Your task to perform on an android device: Open the phone app and click the voicemail tab. Image 0: 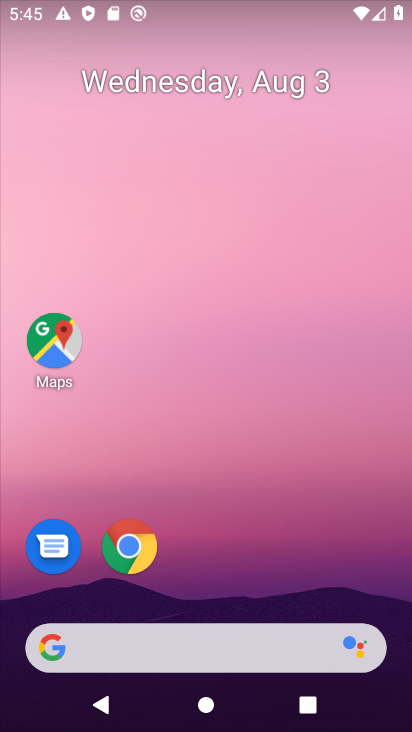
Step 0: drag from (325, 506) to (289, 61)
Your task to perform on an android device: Open the phone app and click the voicemail tab. Image 1: 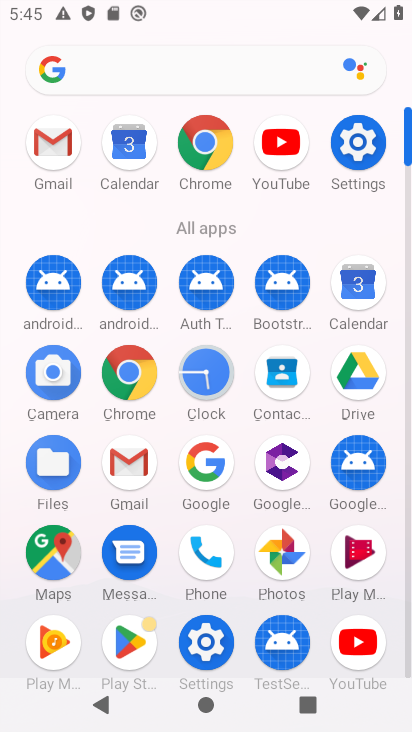
Step 1: click (209, 557)
Your task to perform on an android device: Open the phone app and click the voicemail tab. Image 2: 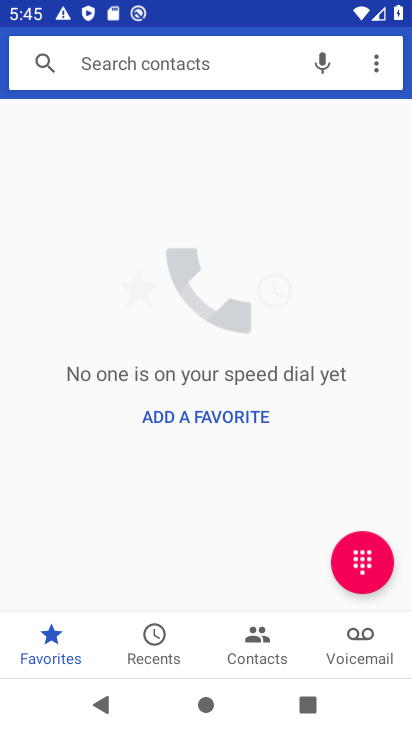
Step 2: click (358, 634)
Your task to perform on an android device: Open the phone app and click the voicemail tab. Image 3: 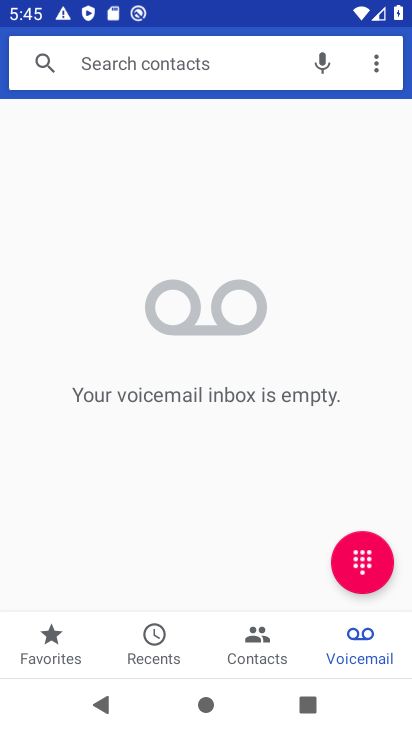
Step 3: task complete